Your task to perform on an android device: Show me productivity apps on the Play Store Image 0: 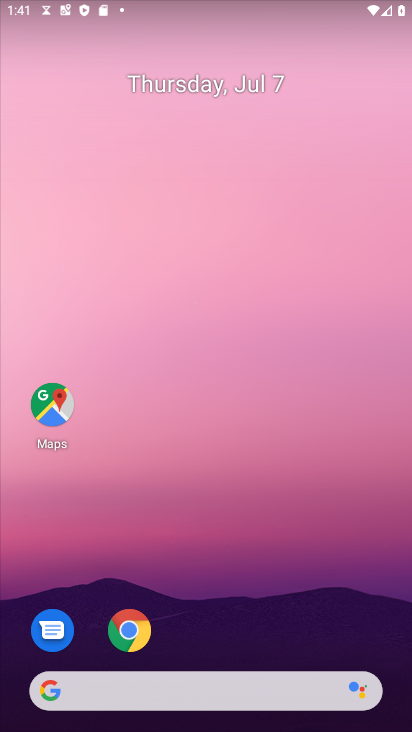
Step 0: drag from (313, 635) to (255, 138)
Your task to perform on an android device: Show me productivity apps on the Play Store Image 1: 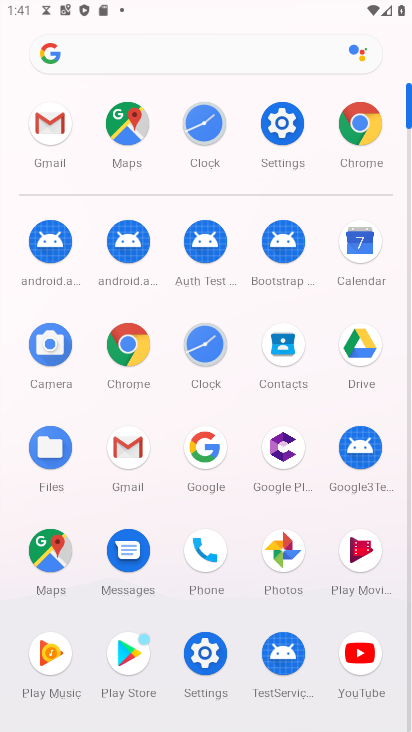
Step 1: click (123, 653)
Your task to perform on an android device: Show me productivity apps on the Play Store Image 2: 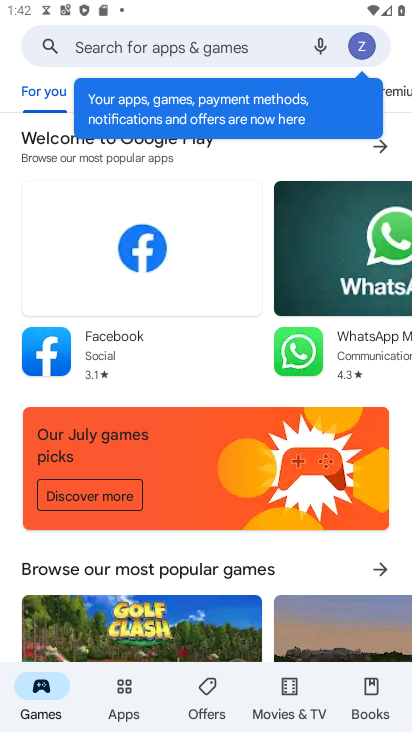
Step 2: drag from (283, 561) to (247, 219)
Your task to perform on an android device: Show me productivity apps on the Play Store Image 3: 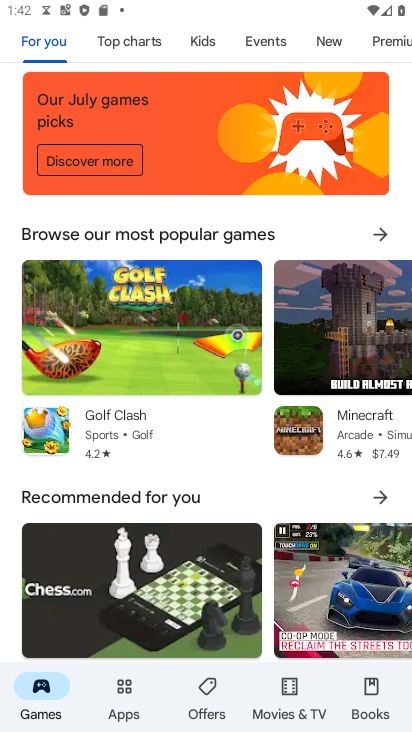
Step 3: click (134, 682)
Your task to perform on an android device: Show me productivity apps on the Play Store Image 4: 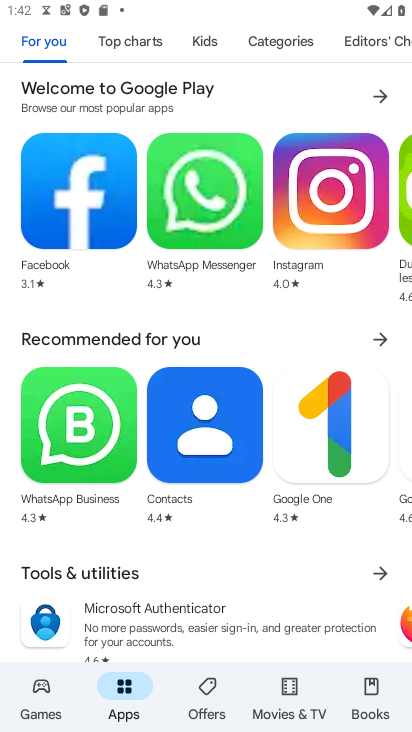
Step 4: click (280, 43)
Your task to perform on an android device: Show me productivity apps on the Play Store Image 5: 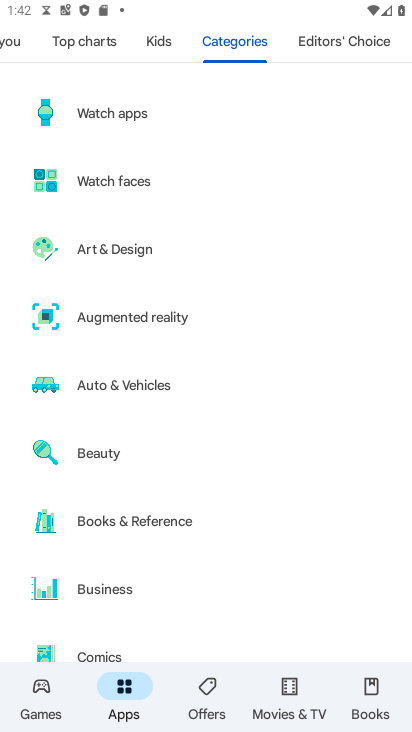
Step 5: drag from (208, 615) to (177, 239)
Your task to perform on an android device: Show me productivity apps on the Play Store Image 6: 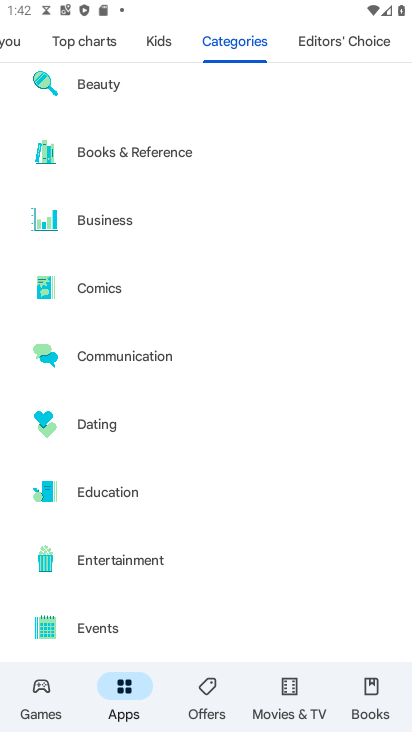
Step 6: drag from (180, 566) to (165, 114)
Your task to perform on an android device: Show me productivity apps on the Play Store Image 7: 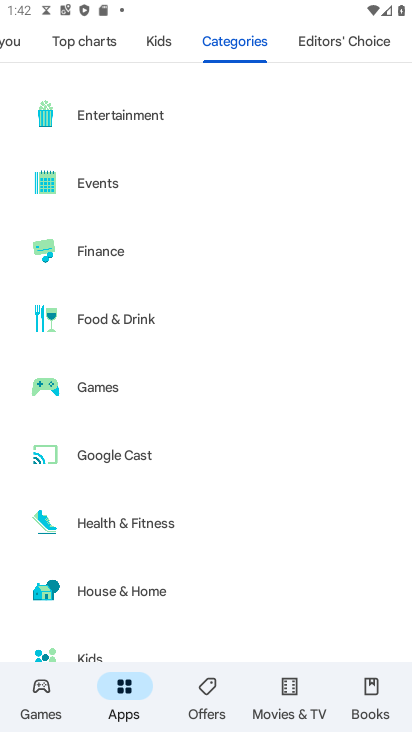
Step 7: drag from (204, 505) to (179, 146)
Your task to perform on an android device: Show me productivity apps on the Play Store Image 8: 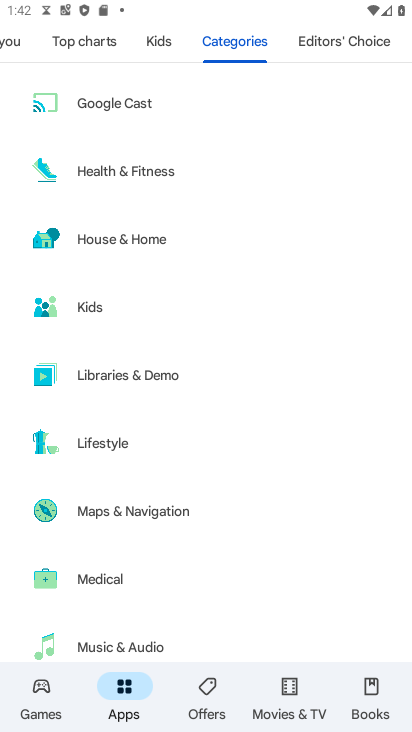
Step 8: drag from (187, 635) to (195, 302)
Your task to perform on an android device: Show me productivity apps on the Play Store Image 9: 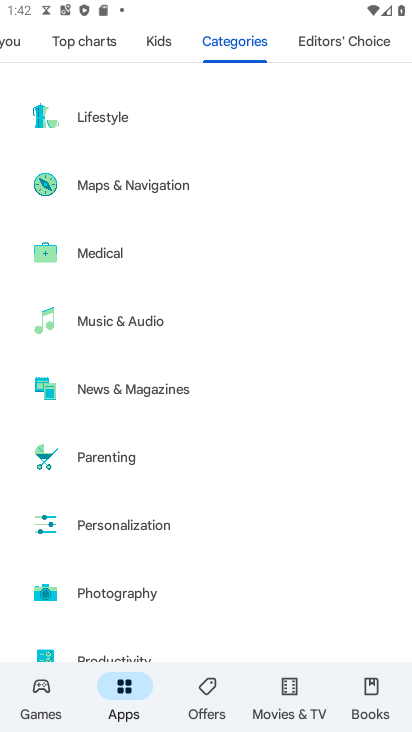
Step 9: drag from (195, 302) to (184, 135)
Your task to perform on an android device: Show me productivity apps on the Play Store Image 10: 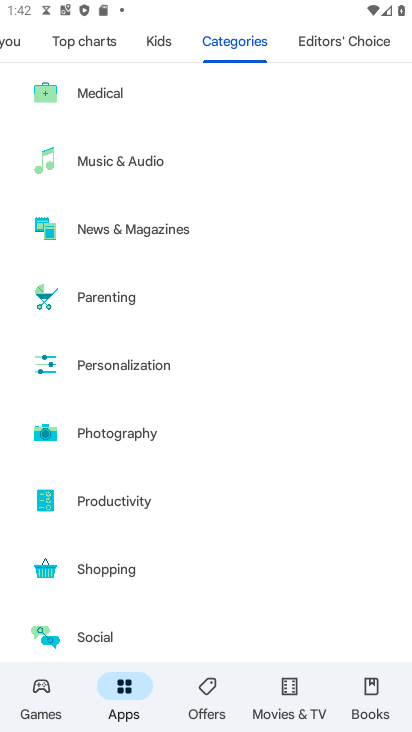
Step 10: click (179, 498)
Your task to perform on an android device: Show me productivity apps on the Play Store Image 11: 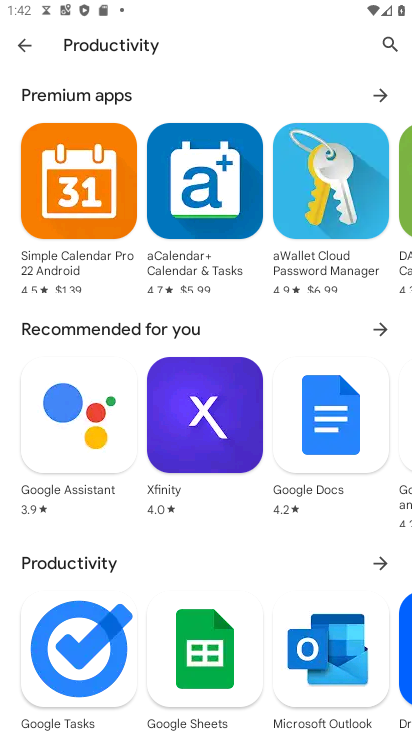
Step 11: task complete